Your task to perform on an android device: turn on translation in the chrome app Image 0: 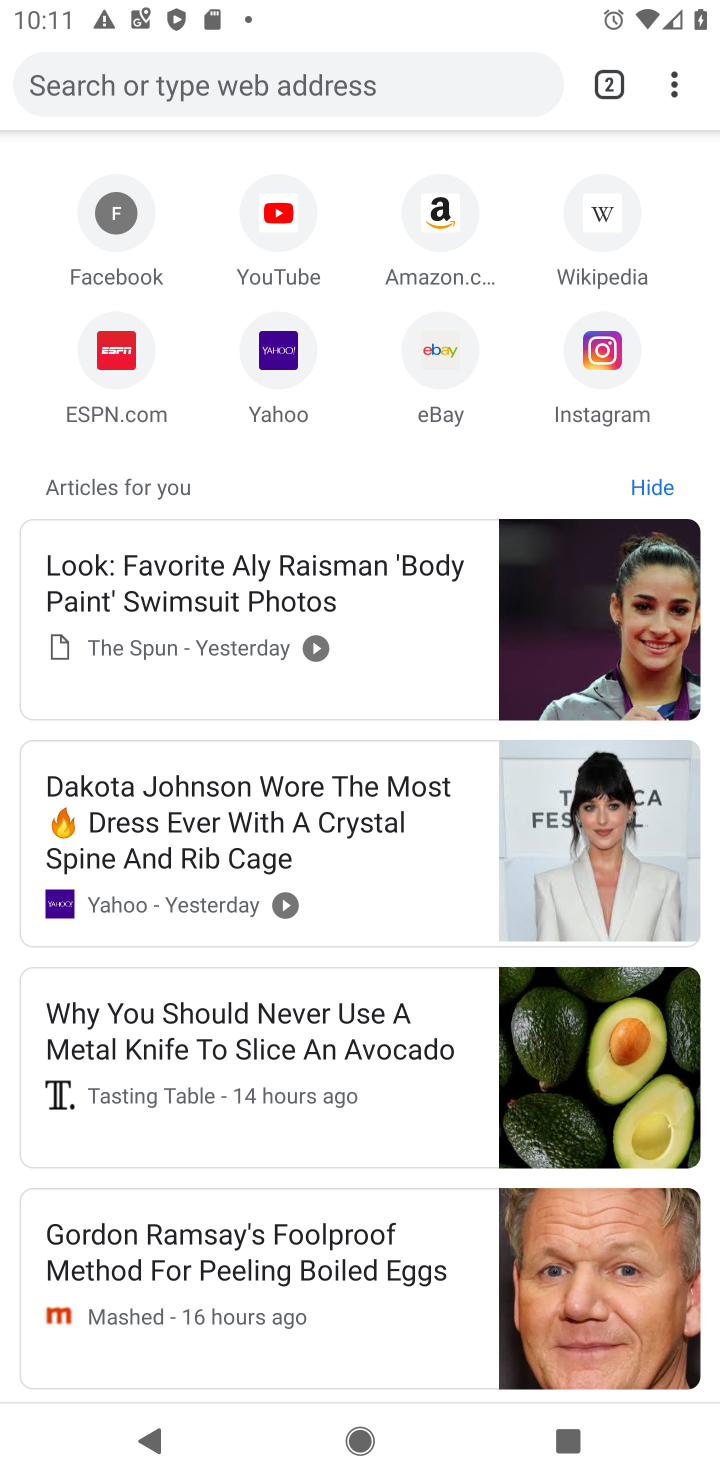
Step 0: press home button
Your task to perform on an android device: turn on translation in the chrome app Image 1: 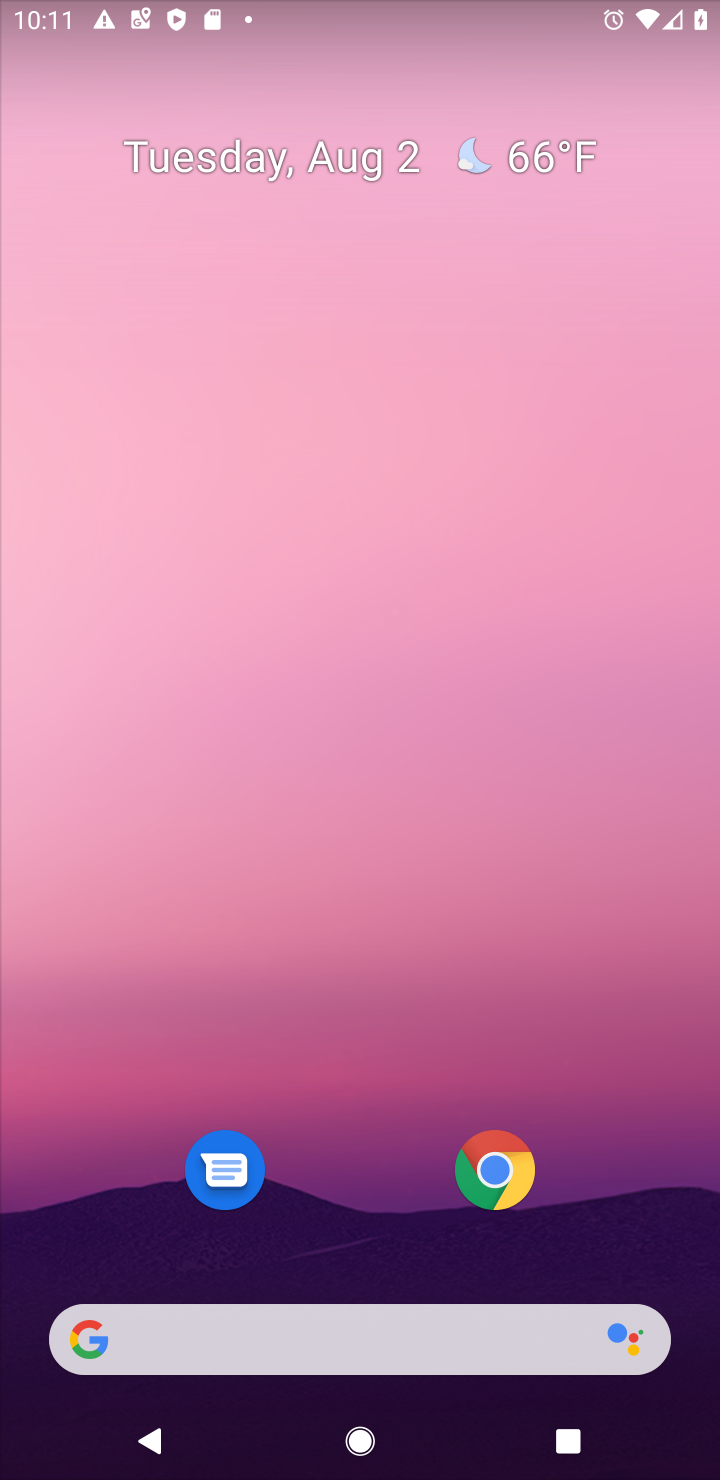
Step 1: drag from (314, 1249) to (550, 160)
Your task to perform on an android device: turn on translation in the chrome app Image 2: 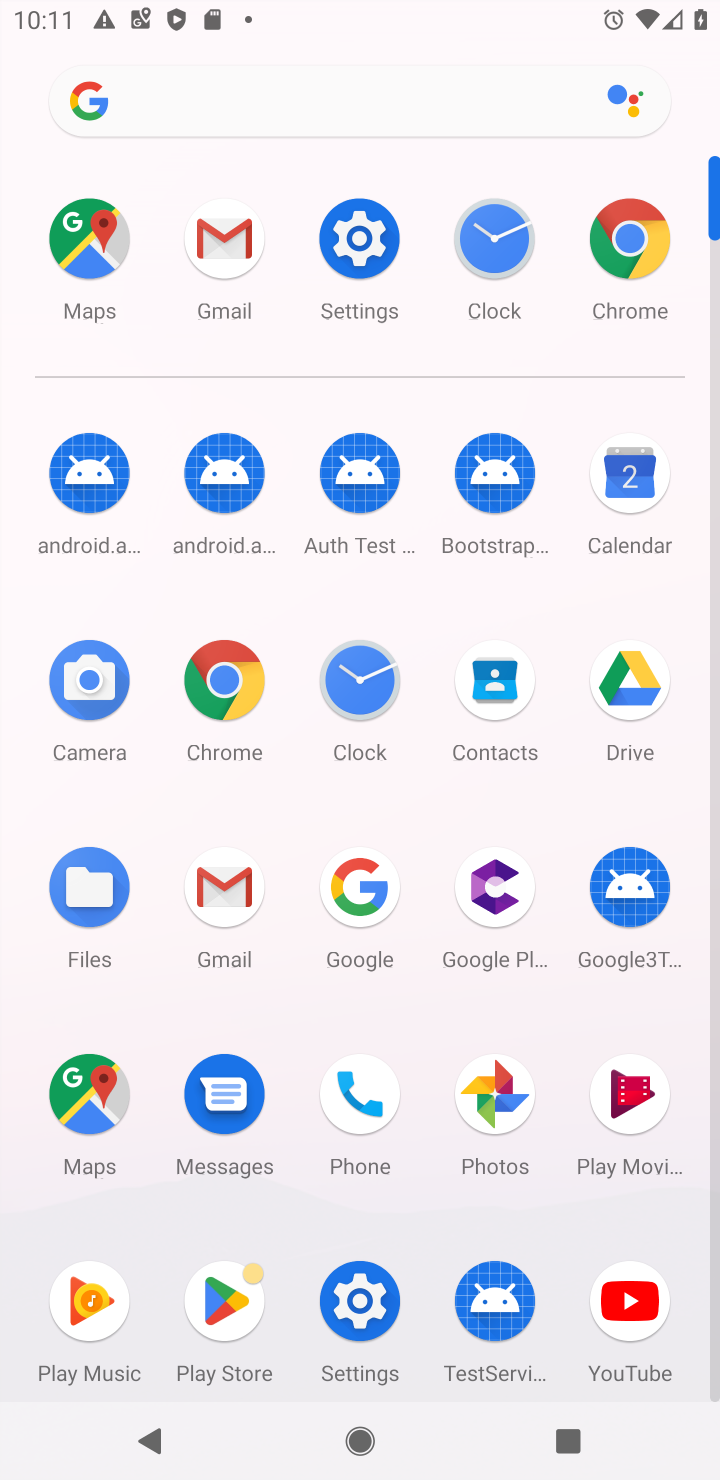
Step 2: click (635, 253)
Your task to perform on an android device: turn on translation in the chrome app Image 3: 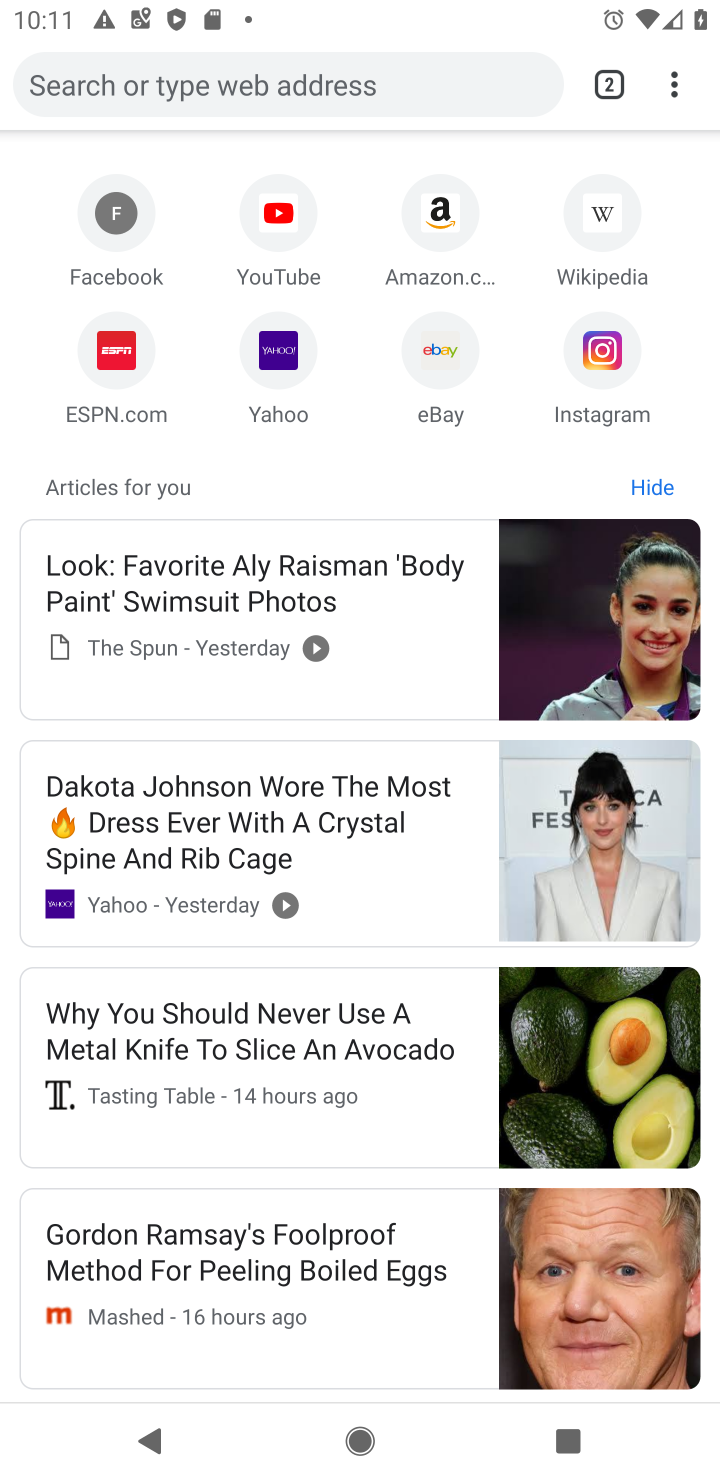
Step 3: click (670, 87)
Your task to perform on an android device: turn on translation in the chrome app Image 4: 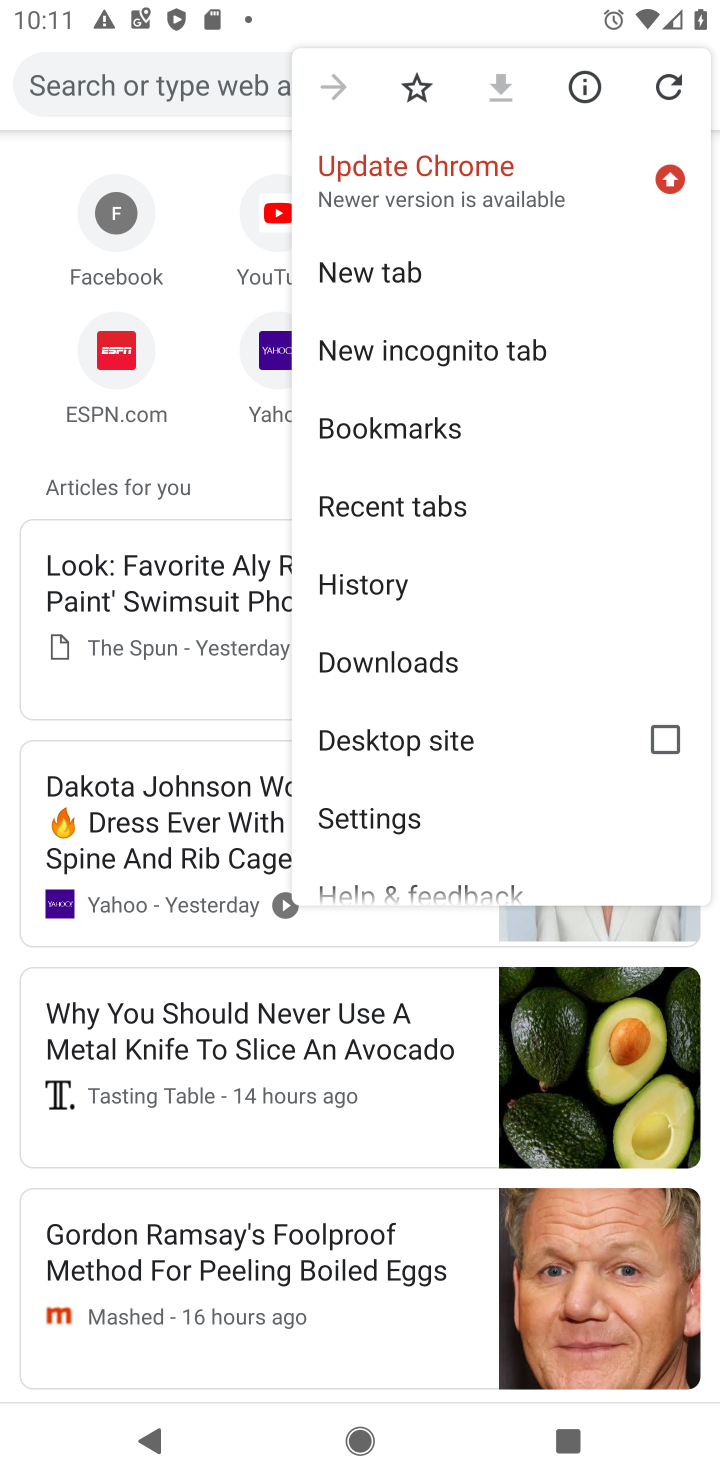
Step 4: click (362, 809)
Your task to perform on an android device: turn on translation in the chrome app Image 5: 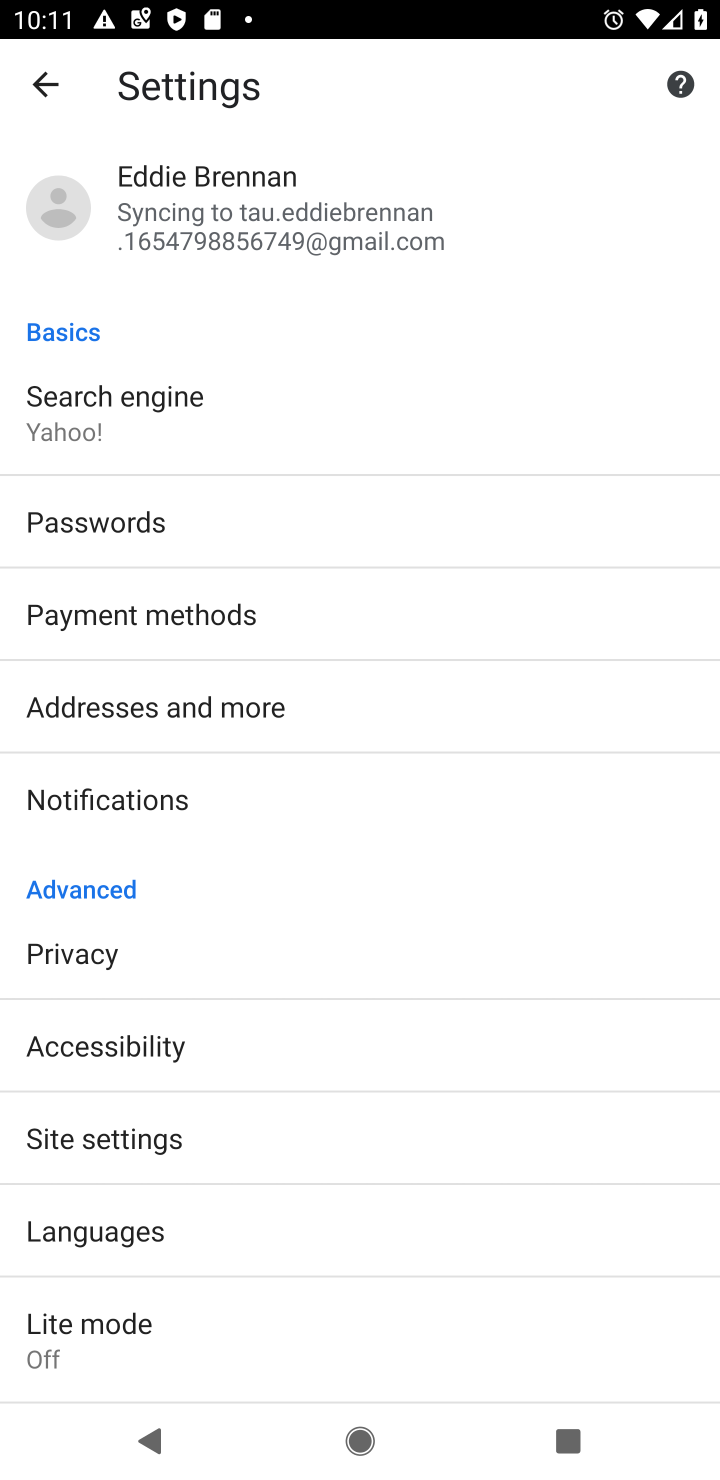
Step 5: click (82, 1235)
Your task to perform on an android device: turn on translation in the chrome app Image 6: 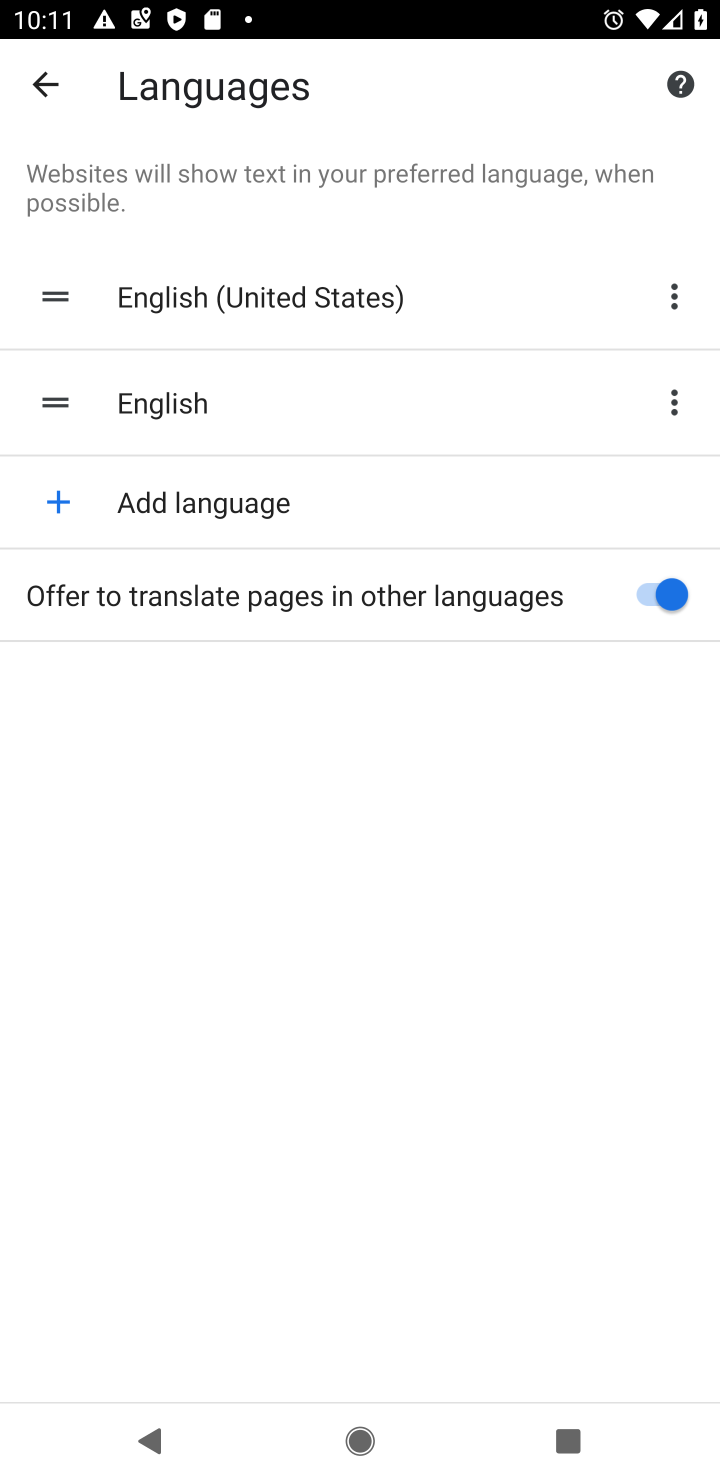
Step 6: task complete